Your task to perform on an android device: Open my contact list Image 0: 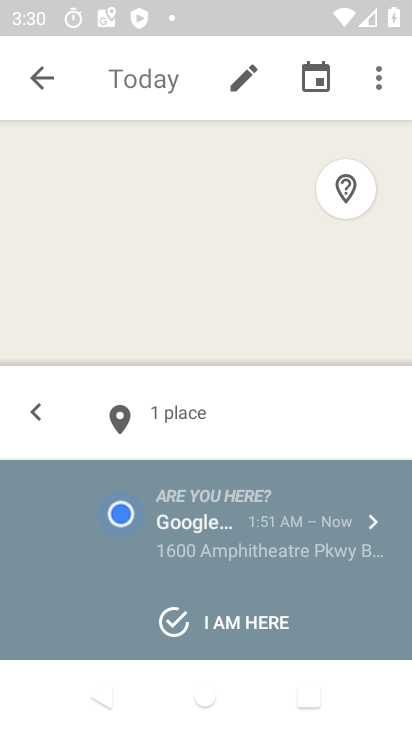
Step 0: drag from (340, 582) to (298, 74)
Your task to perform on an android device: Open my contact list Image 1: 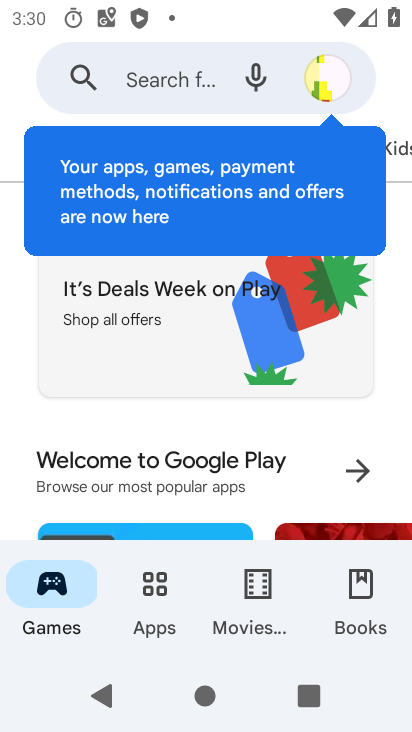
Step 1: press home button
Your task to perform on an android device: Open my contact list Image 2: 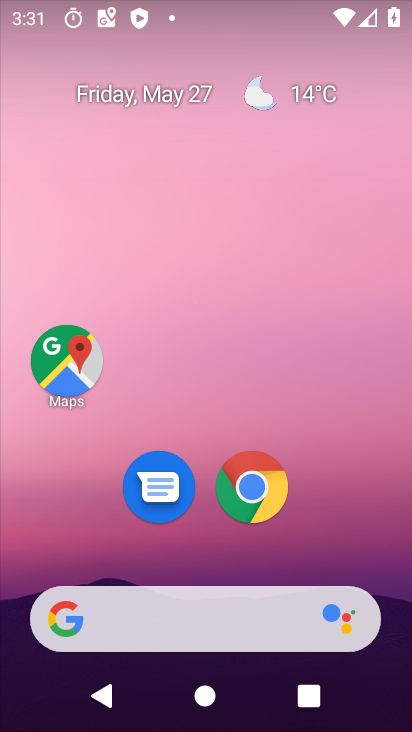
Step 2: drag from (337, 541) to (268, 13)
Your task to perform on an android device: Open my contact list Image 3: 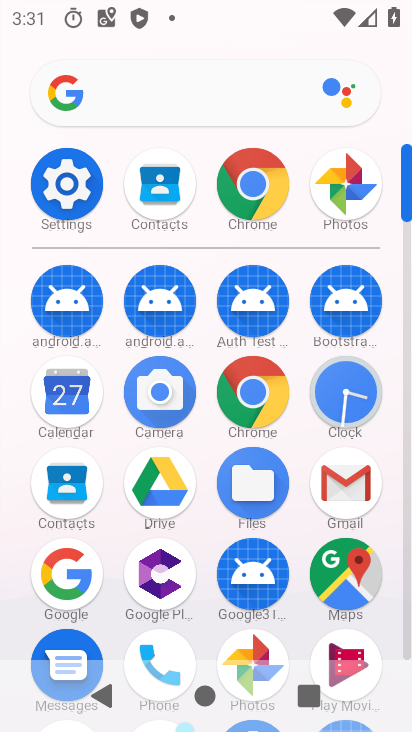
Step 3: click (167, 180)
Your task to perform on an android device: Open my contact list Image 4: 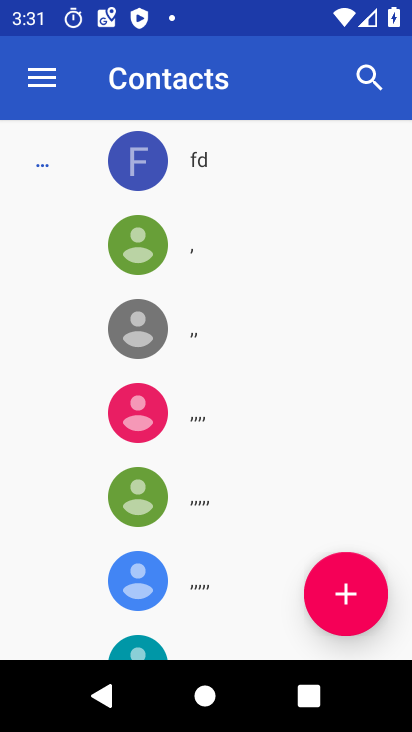
Step 4: task complete